Your task to perform on an android device: open the mobile data screen to see how much data has been used Image 0: 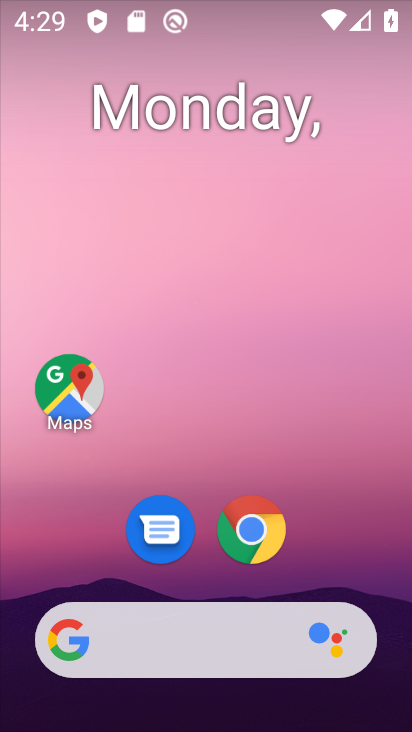
Step 0: drag from (196, 585) to (264, 0)
Your task to perform on an android device: open the mobile data screen to see how much data has been used Image 1: 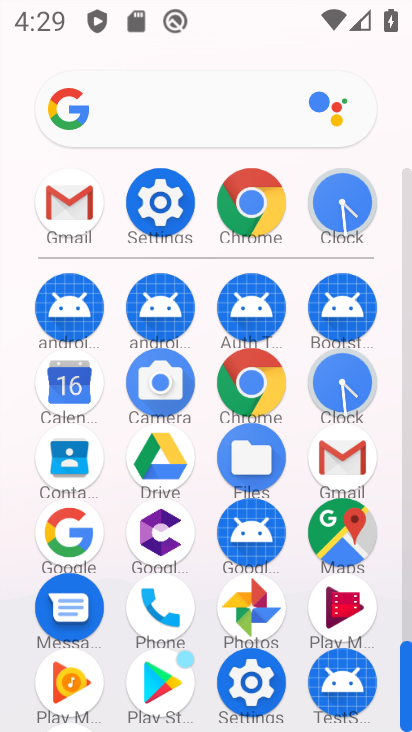
Step 1: press home button
Your task to perform on an android device: open the mobile data screen to see how much data has been used Image 2: 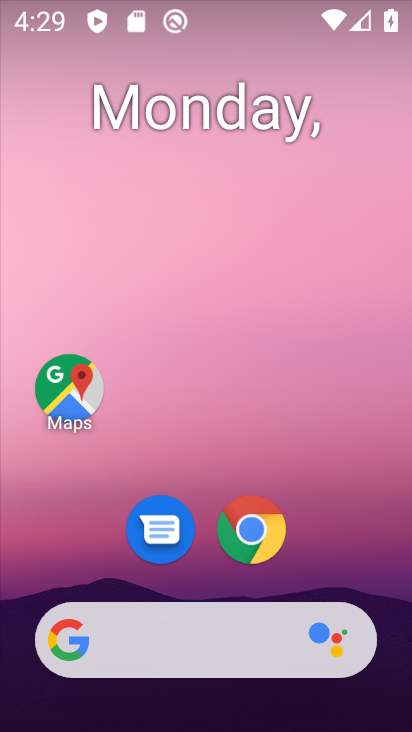
Step 2: drag from (197, 561) to (267, 0)
Your task to perform on an android device: open the mobile data screen to see how much data has been used Image 3: 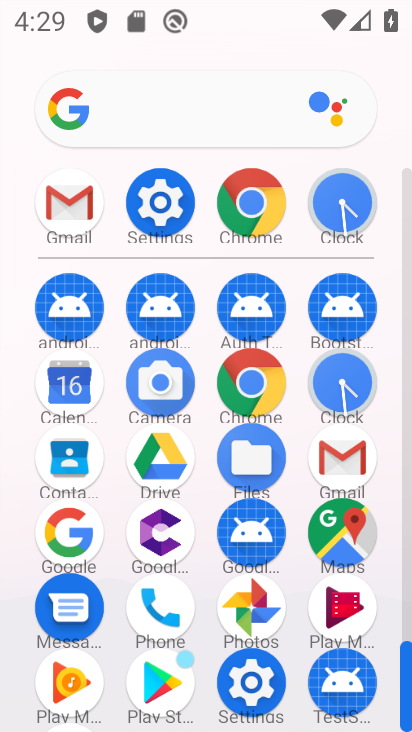
Step 3: click (152, 204)
Your task to perform on an android device: open the mobile data screen to see how much data has been used Image 4: 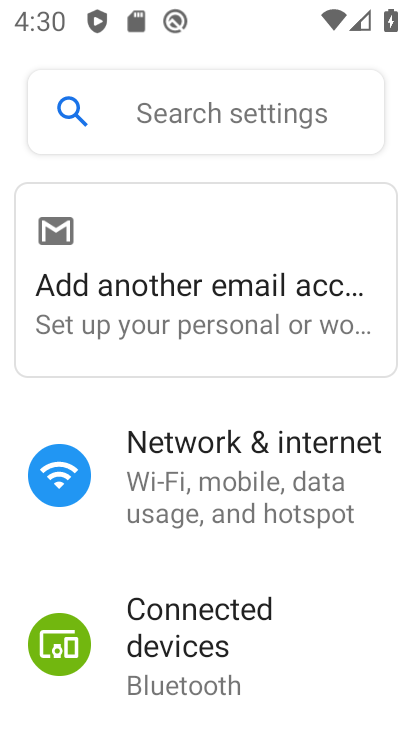
Step 4: drag from (228, 543) to (335, 245)
Your task to perform on an android device: open the mobile data screen to see how much data has been used Image 5: 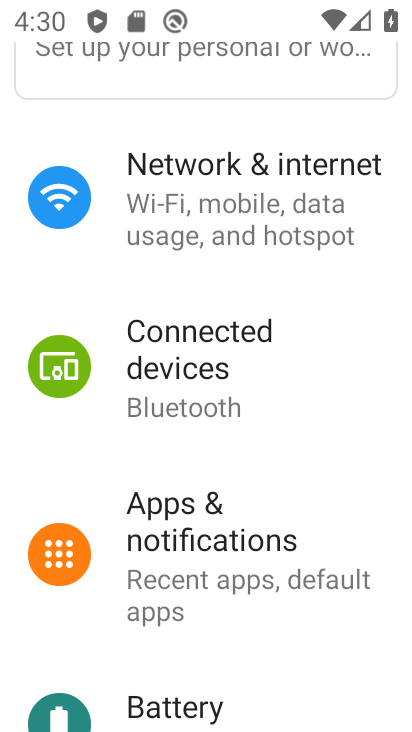
Step 5: click (279, 223)
Your task to perform on an android device: open the mobile data screen to see how much data has been used Image 6: 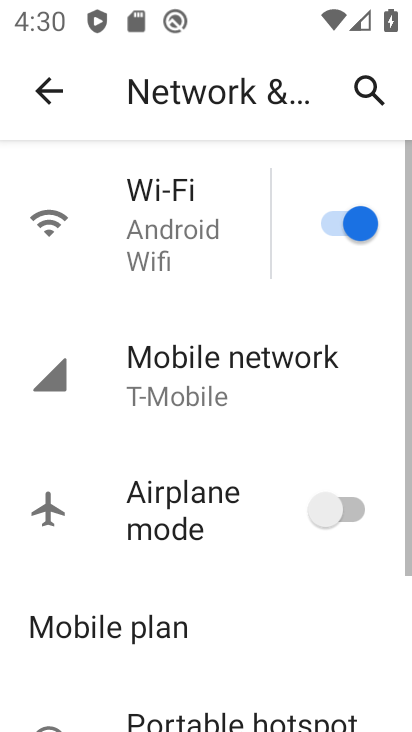
Step 6: click (249, 369)
Your task to perform on an android device: open the mobile data screen to see how much data has been used Image 7: 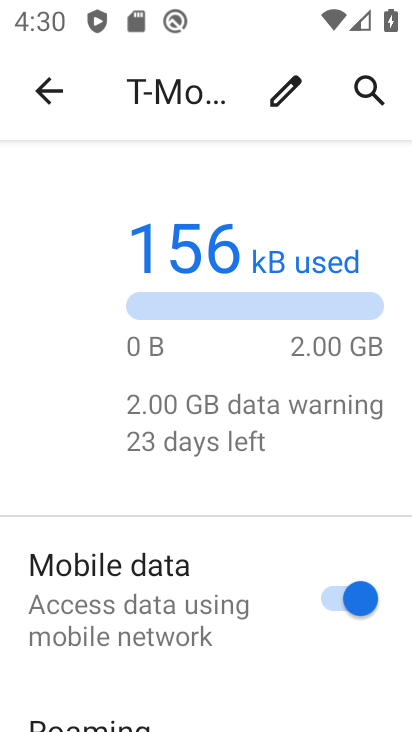
Step 7: drag from (220, 583) to (281, 326)
Your task to perform on an android device: open the mobile data screen to see how much data has been used Image 8: 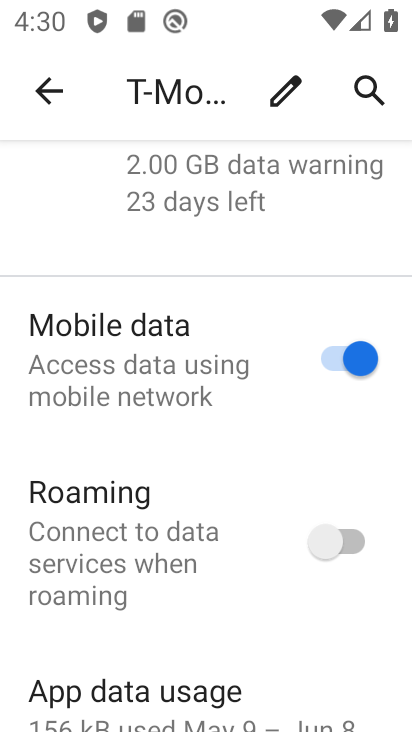
Step 8: drag from (229, 573) to (242, 282)
Your task to perform on an android device: open the mobile data screen to see how much data has been used Image 9: 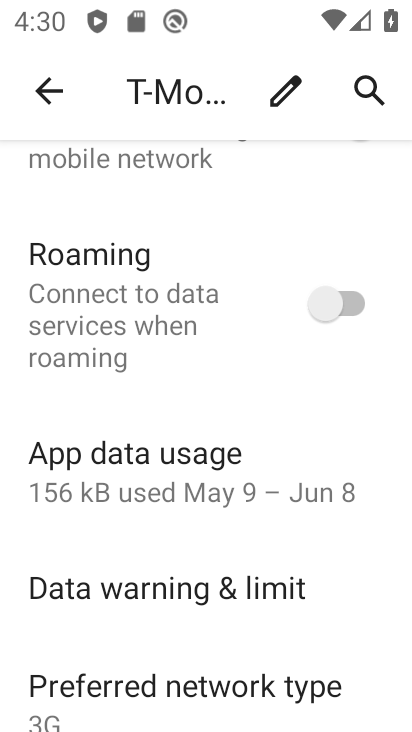
Step 9: drag from (301, 402) to (333, 333)
Your task to perform on an android device: open the mobile data screen to see how much data has been used Image 10: 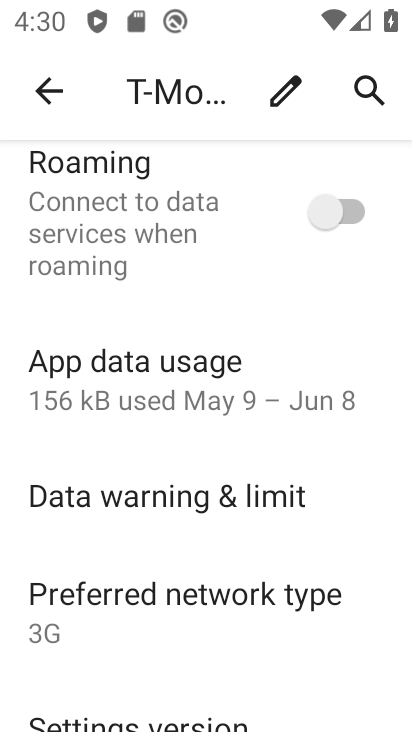
Step 10: click (271, 392)
Your task to perform on an android device: open the mobile data screen to see how much data has been used Image 11: 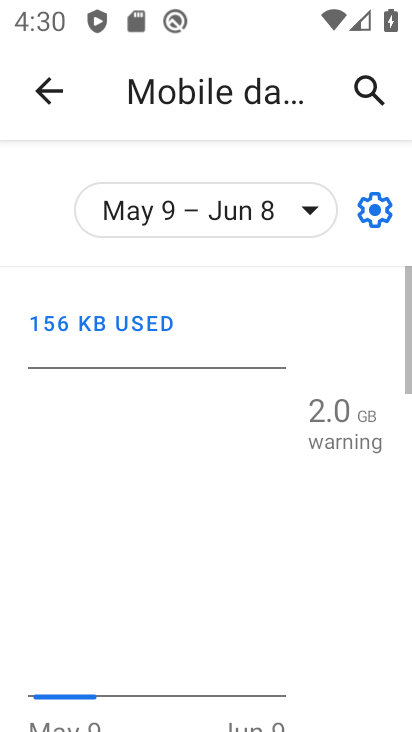
Step 11: task complete